Your task to perform on an android device: Go to Maps Image 0: 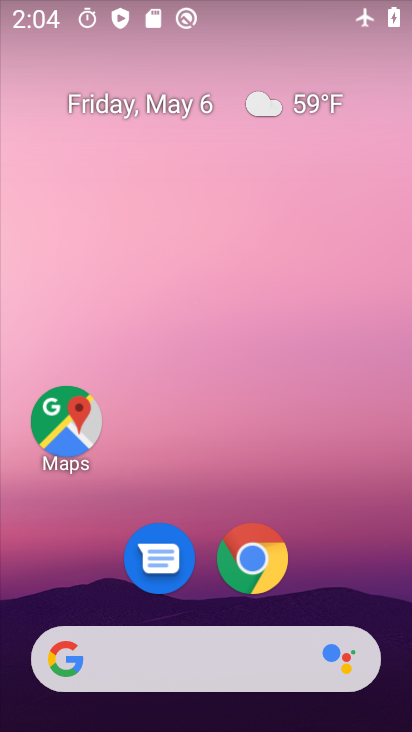
Step 0: drag from (200, 725) to (185, 245)
Your task to perform on an android device: Go to Maps Image 1: 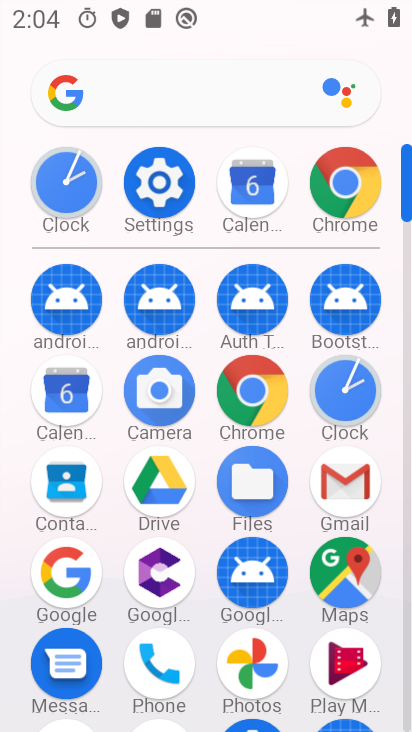
Step 1: click (341, 579)
Your task to perform on an android device: Go to Maps Image 2: 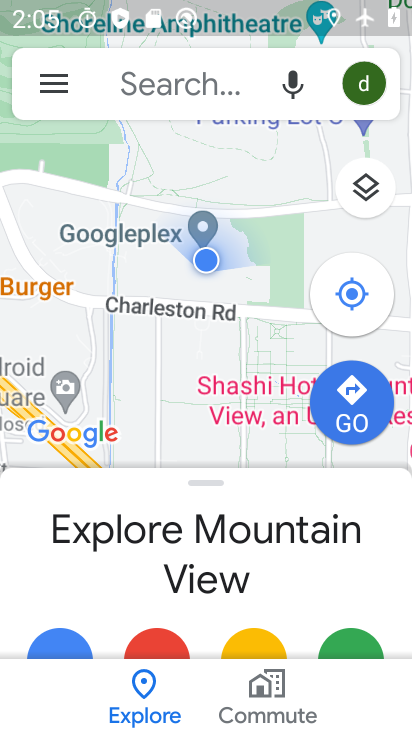
Step 2: task complete